Your task to perform on an android device: find photos in the google photos app Image 0: 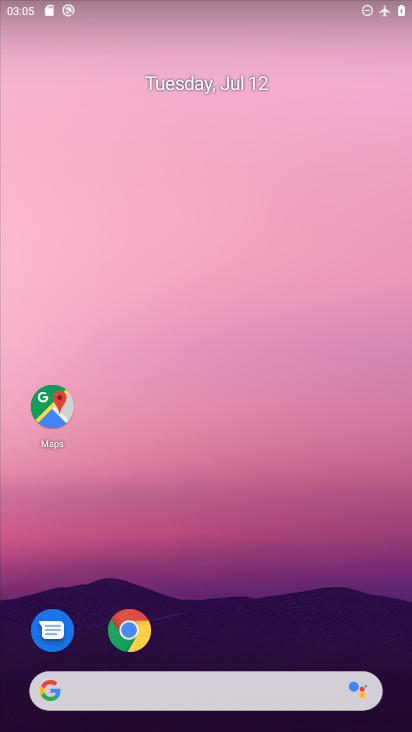
Step 0: drag from (380, 643) to (351, 125)
Your task to perform on an android device: find photos in the google photos app Image 1: 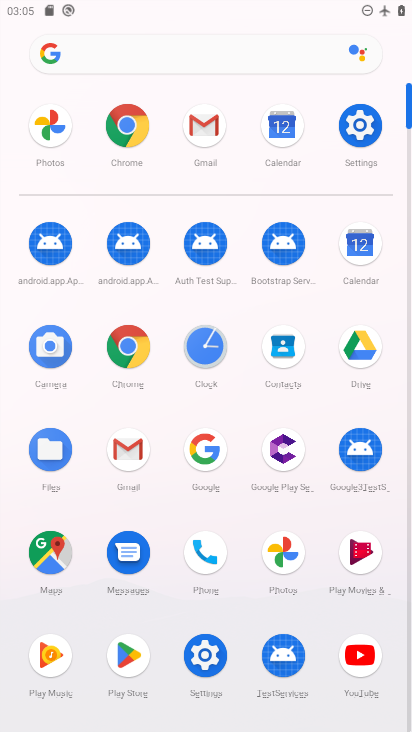
Step 1: click (281, 550)
Your task to perform on an android device: find photos in the google photos app Image 2: 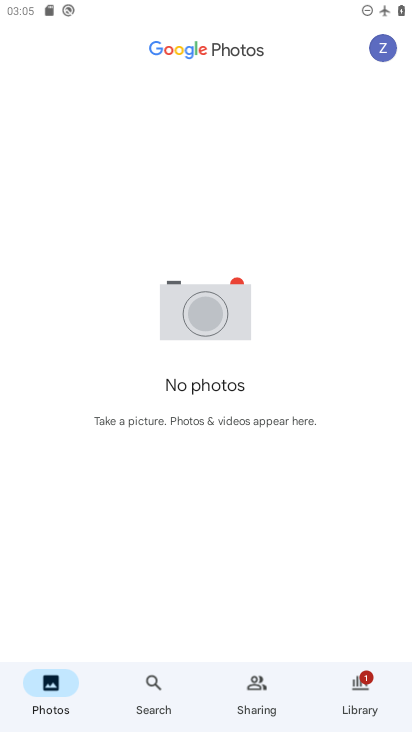
Step 2: task complete